Your task to perform on an android device: change notification settings in the gmail app Image 0: 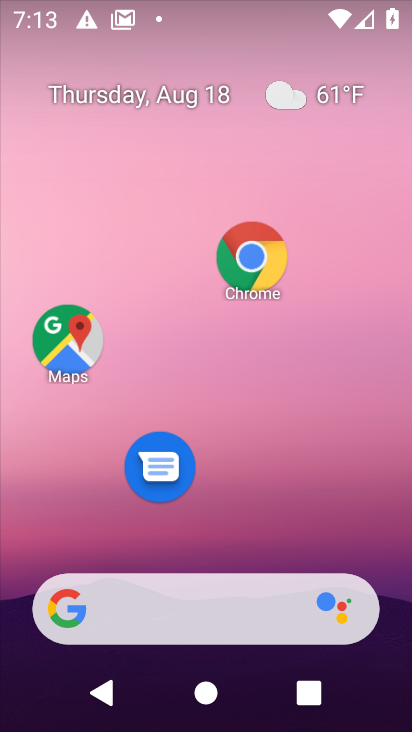
Step 0: drag from (273, 519) to (317, 174)
Your task to perform on an android device: change notification settings in the gmail app Image 1: 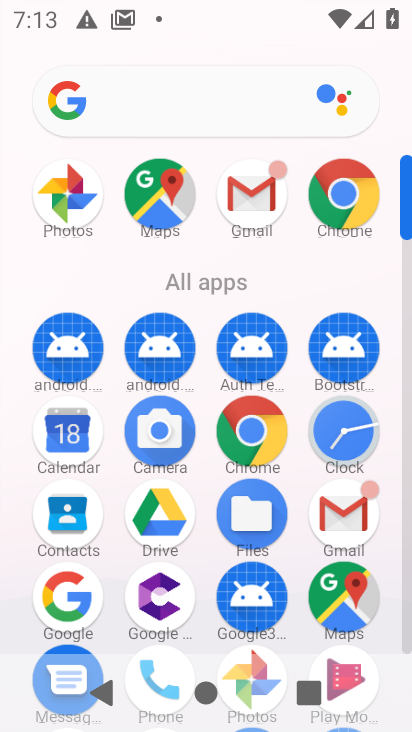
Step 1: click (269, 213)
Your task to perform on an android device: change notification settings in the gmail app Image 2: 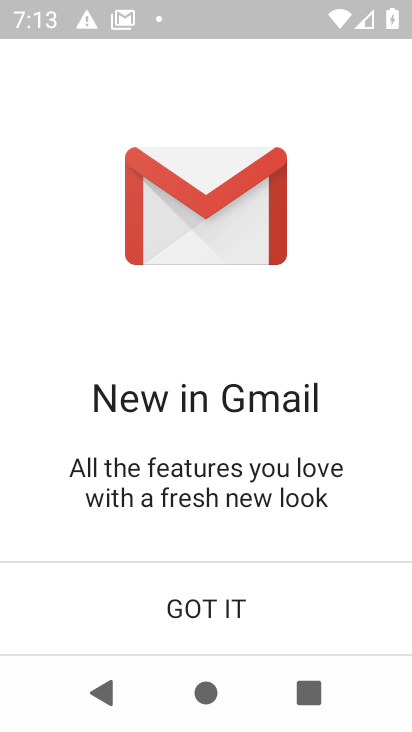
Step 2: click (199, 630)
Your task to perform on an android device: change notification settings in the gmail app Image 3: 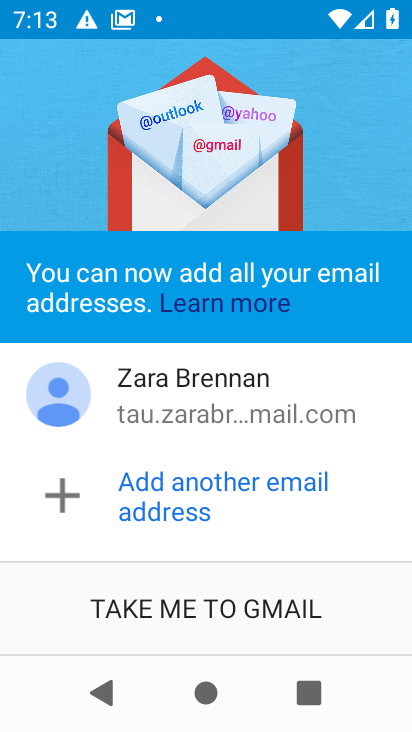
Step 3: click (212, 610)
Your task to perform on an android device: change notification settings in the gmail app Image 4: 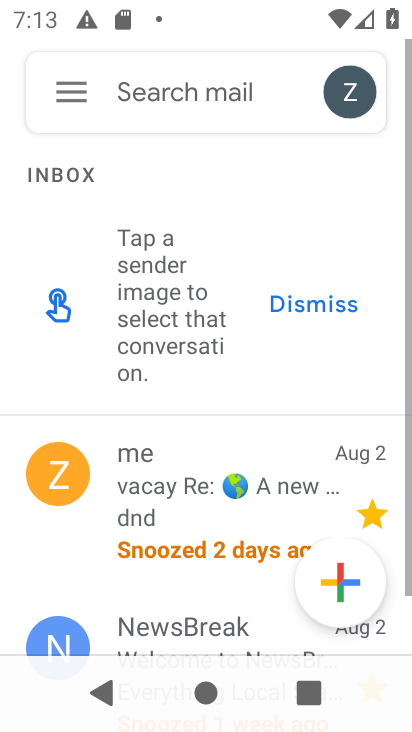
Step 4: task complete